Your task to perform on an android device: Go to sound settings Image 0: 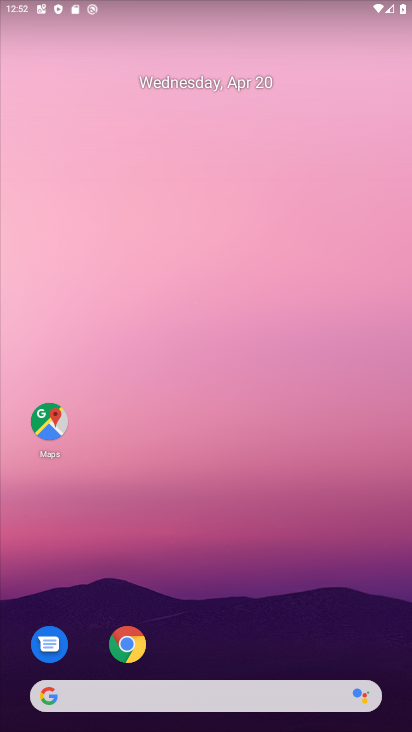
Step 0: drag from (246, 172) to (316, 22)
Your task to perform on an android device: Go to sound settings Image 1: 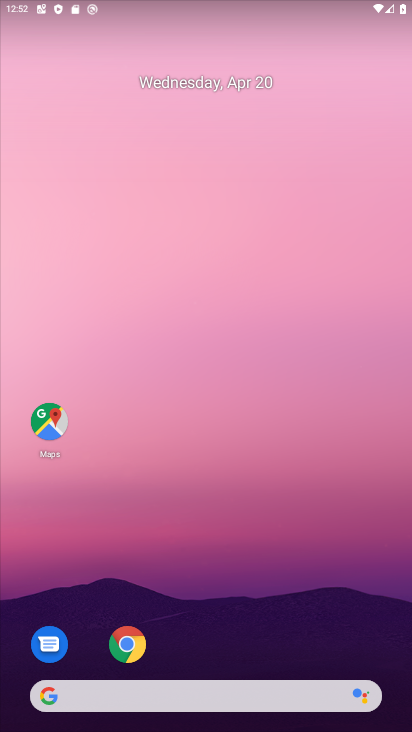
Step 1: drag from (313, 336) to (326, 22)
Your task to perform on an android device: Go to sound settings Image 2: 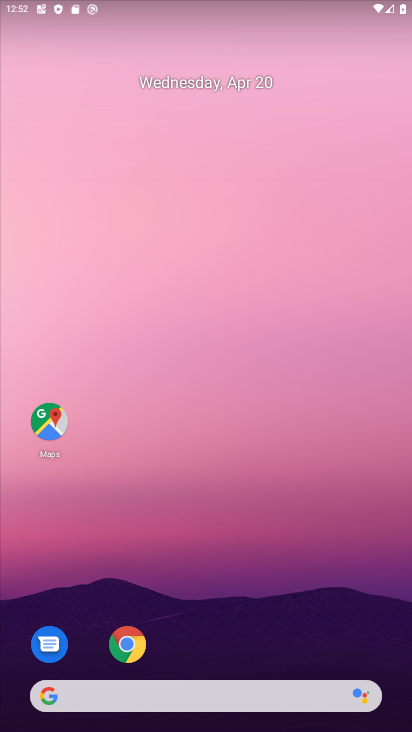
Step 2: drag from (229, 605) to (226, 76)
Your task to perform on an android device: Go to sound settings Image 3: 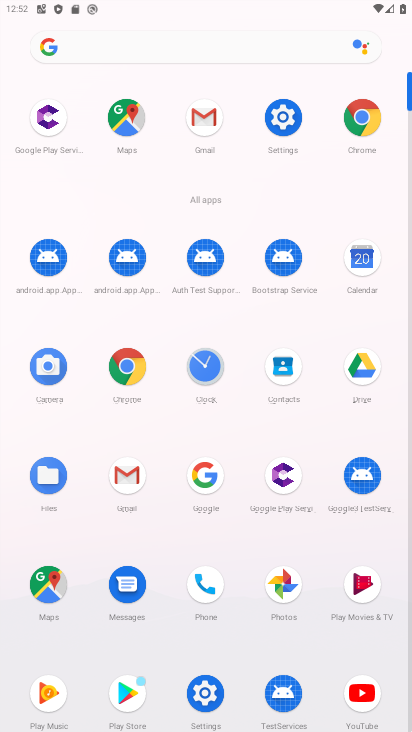
Step 3: click (277, 137)
Your task to perform on an android device: Go to sound settings Image 4: 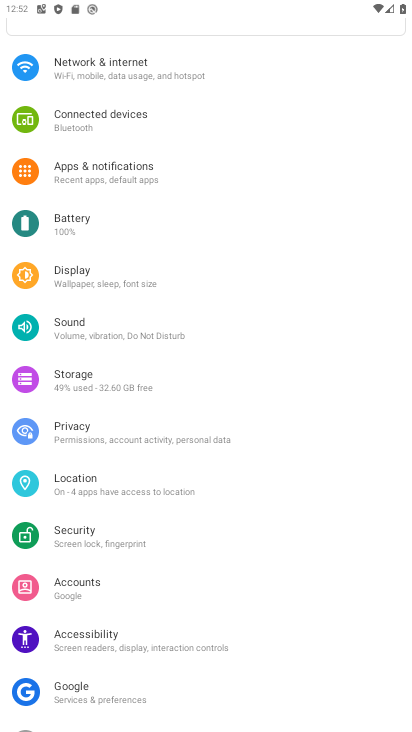
Step 4: click (117, 326)
Your task to perform on an android device: Go to sound settings Image 5: 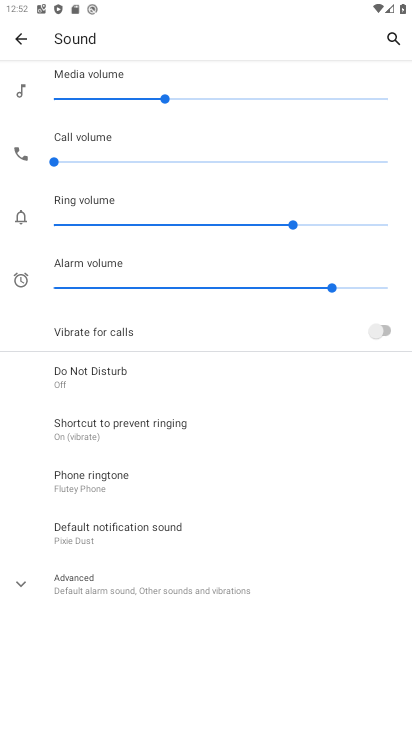
Step 5: task complete